Your task to perform on an android device: turn off smart reply in the gmail app Image 0: 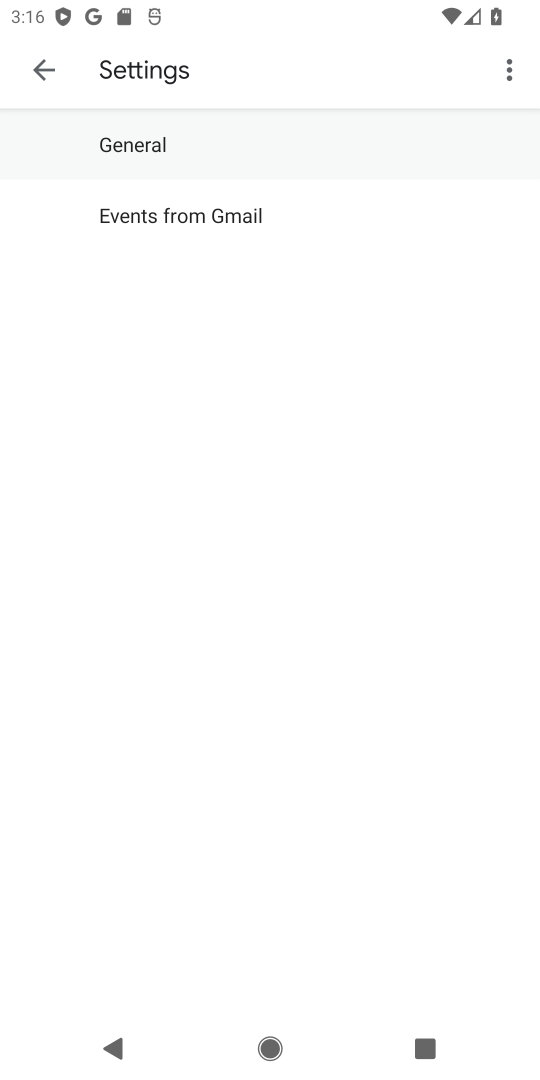
Step 0: press home button
Your task to perform on an android device: turn off smart reply in the gmail app Image 1: 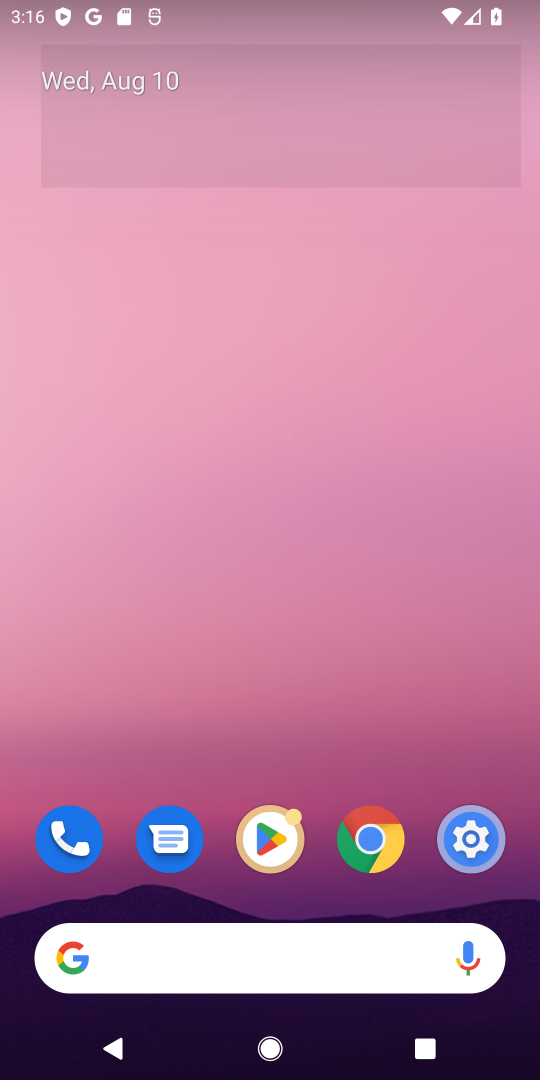
Step 1: drag from (57, 1045) to (326, 199)
Your task to perform on an android device: turn off smart reply in the gmail app Image 2: 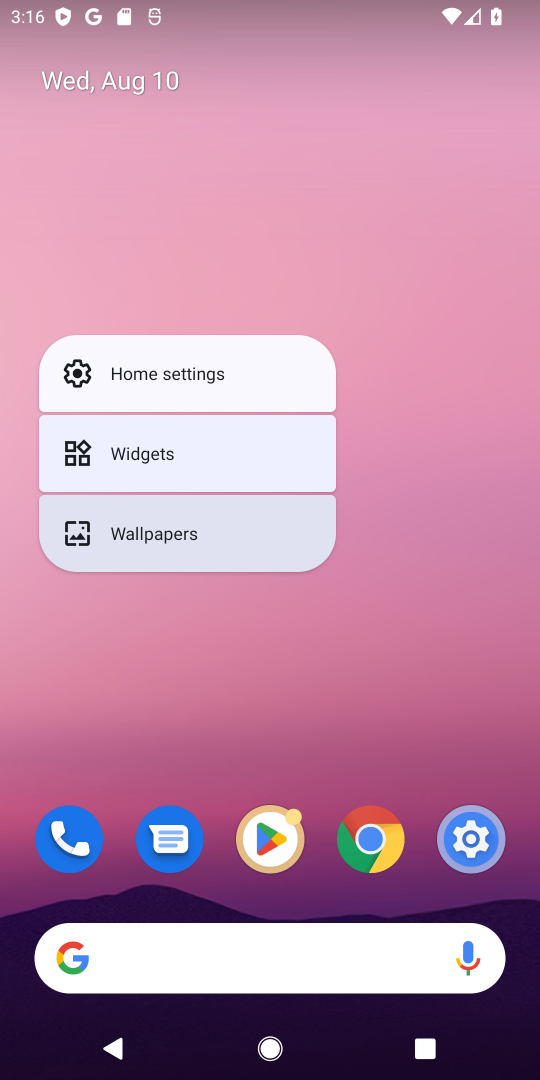
Step 2: click (326, 199)
Your task to perform on an android device: turn off smart reply in the gmail app Image 3: 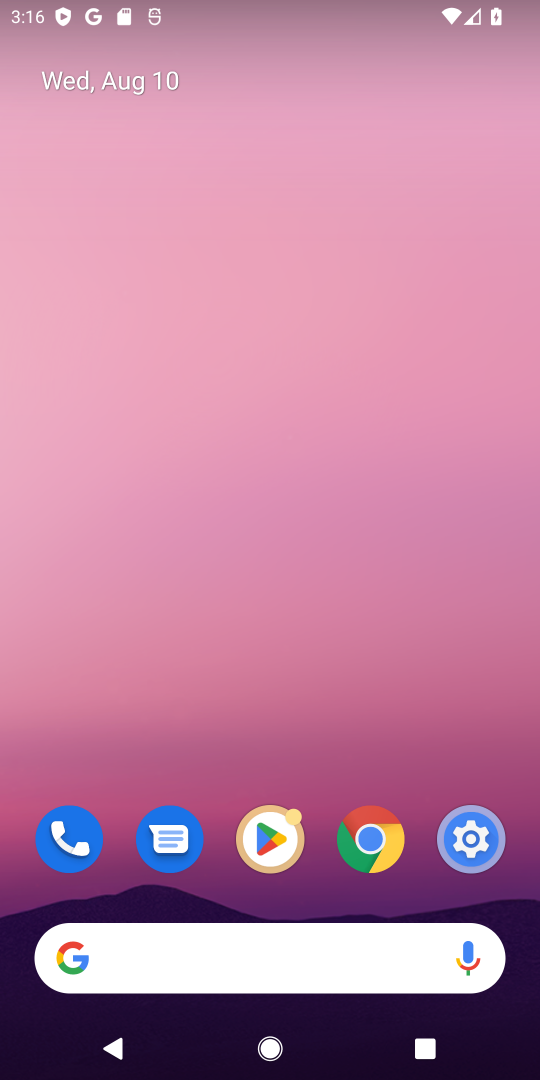
Step 3: drag from (52, 1024) to (279, 304)
Your task to perform on an android device: turn off smart reply in the gmail app Image 4: 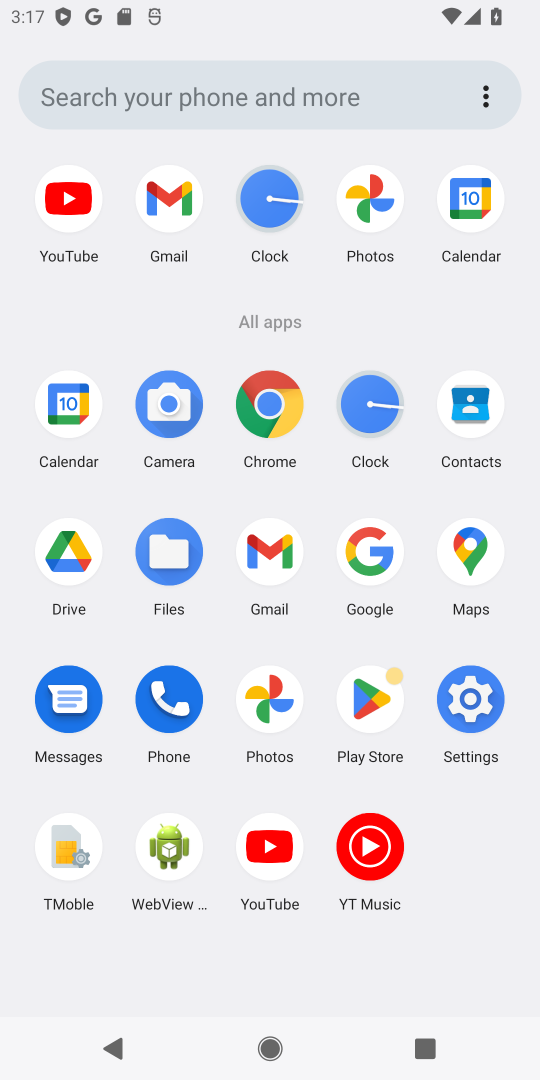
Step 4: click (260, 576)
Your task to perform on an android device: turn off smart reply in the gmail app Image 5: 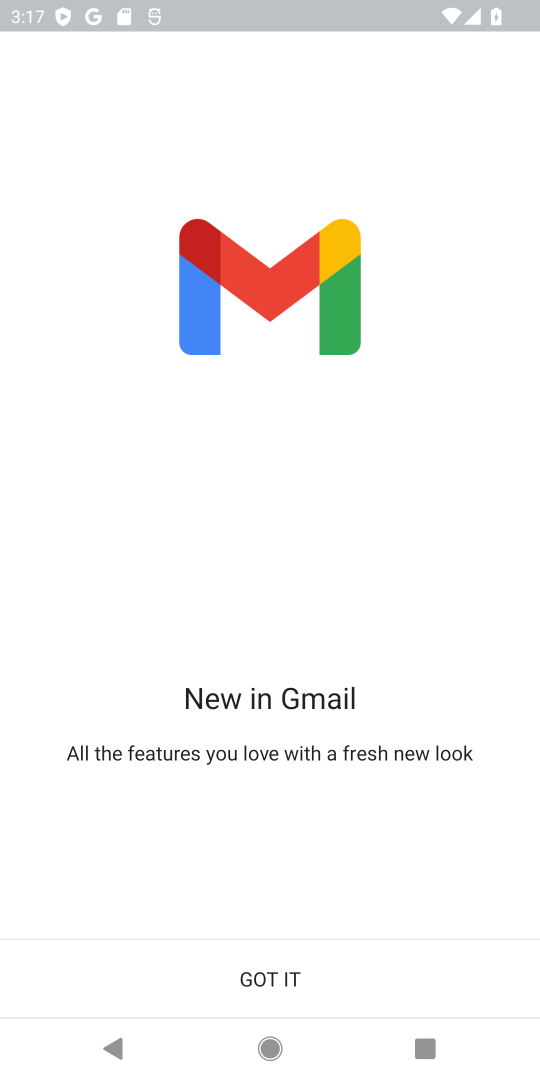
Step 5: click (276, 970)
Your task to perform on an android device: turn off smart reply in the gmail app Image 6: 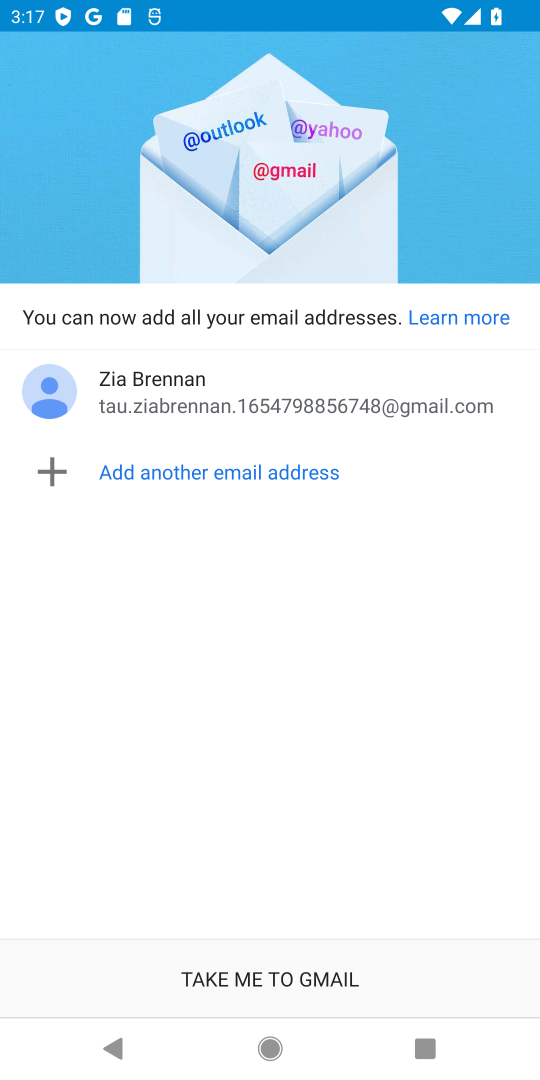
Step 6: click (269, 965)
Your task to perform on an android device: turn off smart reply in the gmail app Image 7: 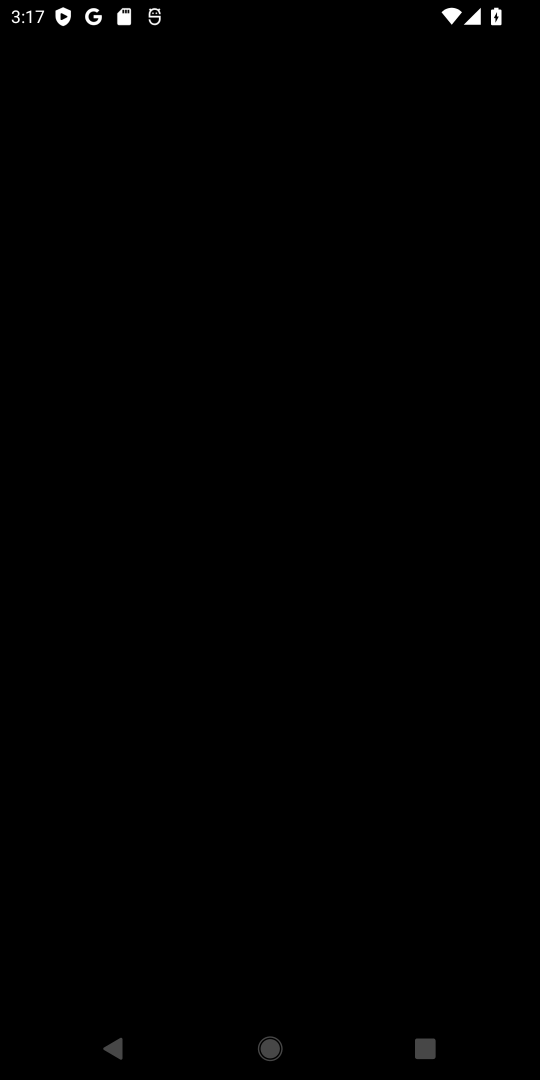
Step 7: click (274, 985)
Your task to perform on an android device: turn off smart reply in the gmail app Image 8: 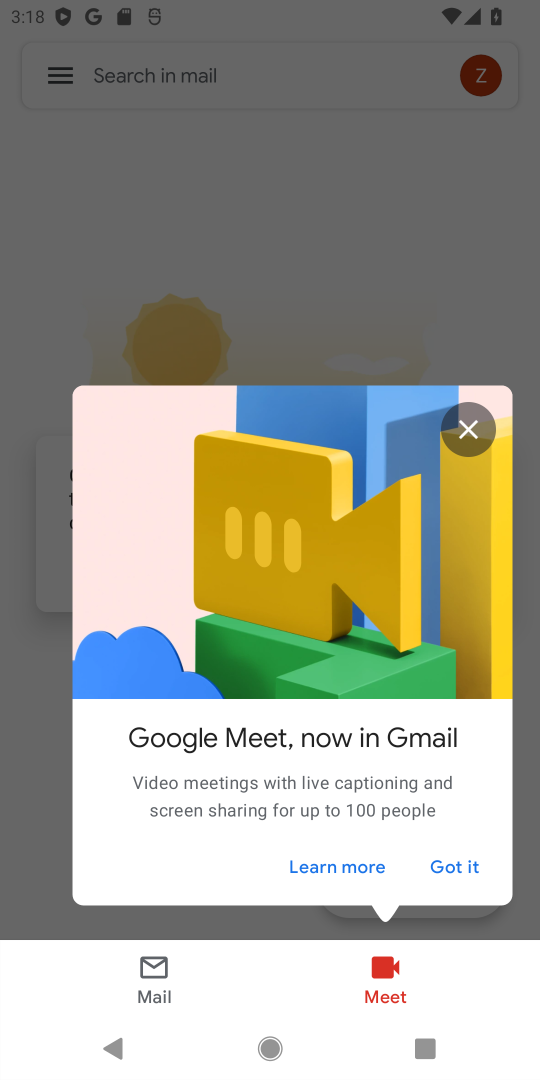
Step 8: click (462, 869)
Your task to perform on an android device: turn off smart reply in the gmail app Image 9: 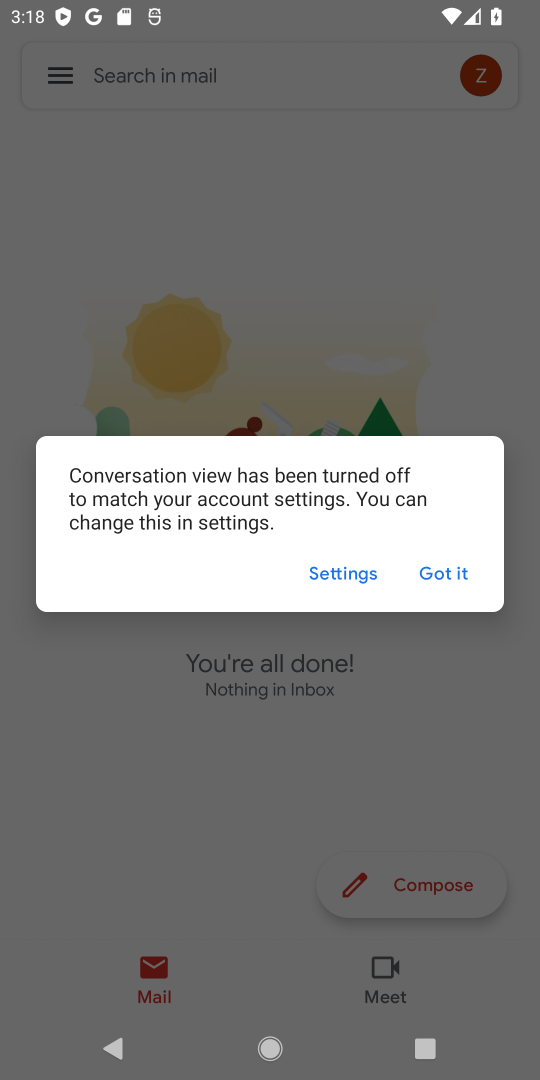
Step 9: click (460, 574)
Your task to perform on an android device: turn off smart reply in the gmail app Image 10: 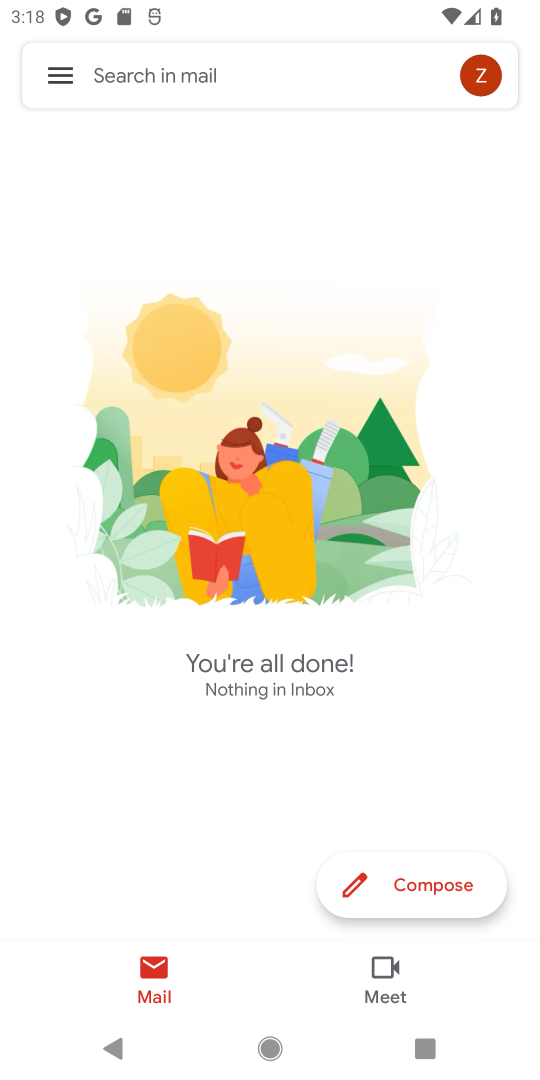
Step 10: click (62, 75)
Your task to perform on an android device: turn off smart reply in the gmail app Image 11: 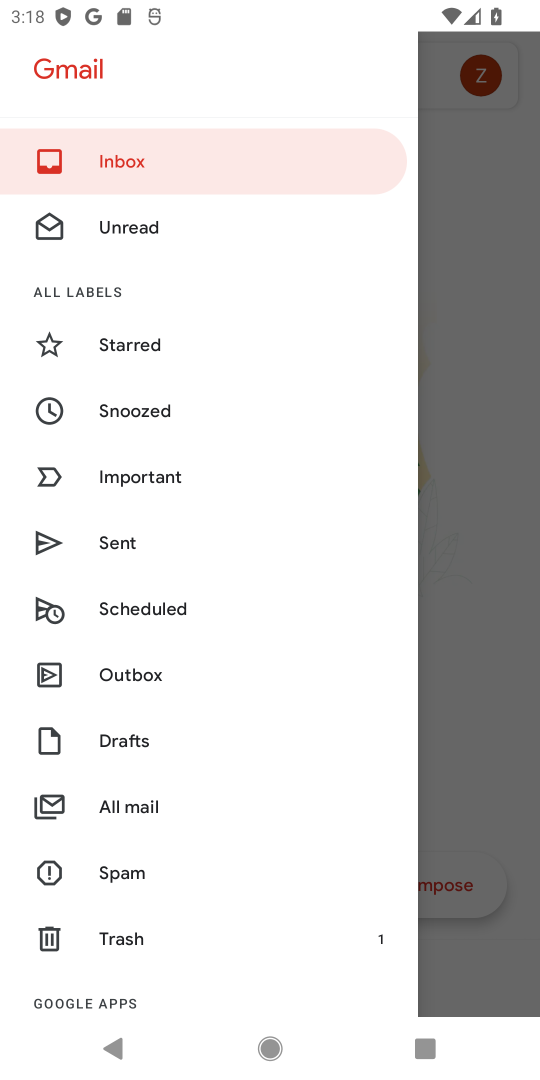
Step 11: drag from (286, 889) to (307, 446)
Your task to perform on an android device: turn off smart reply in the gmail app Image 12: 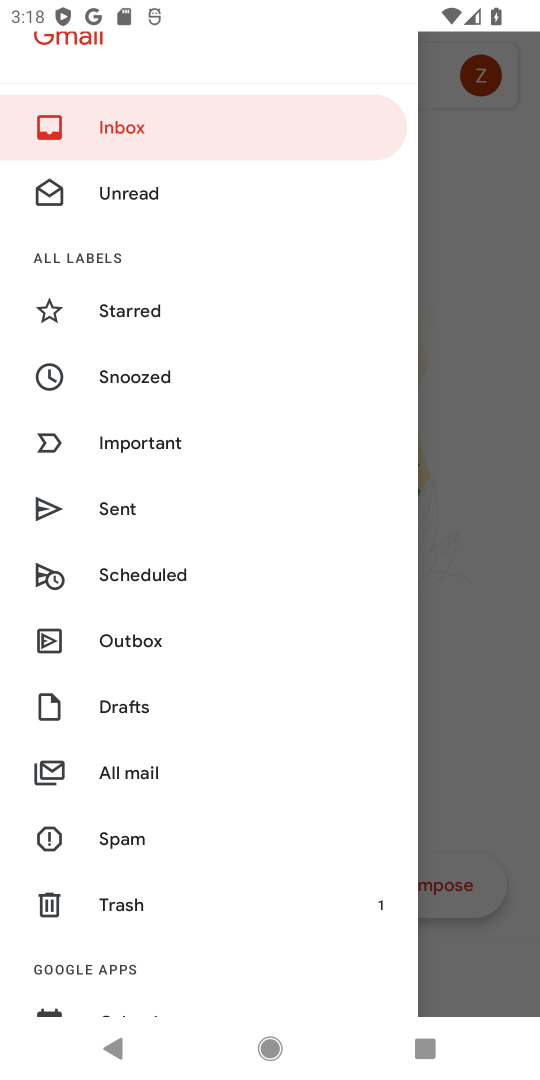
Step 12: drag from (228, 928) to (332, 468)
Your task to perform on an android device: turn off smart reply in the gmail app Image 13: 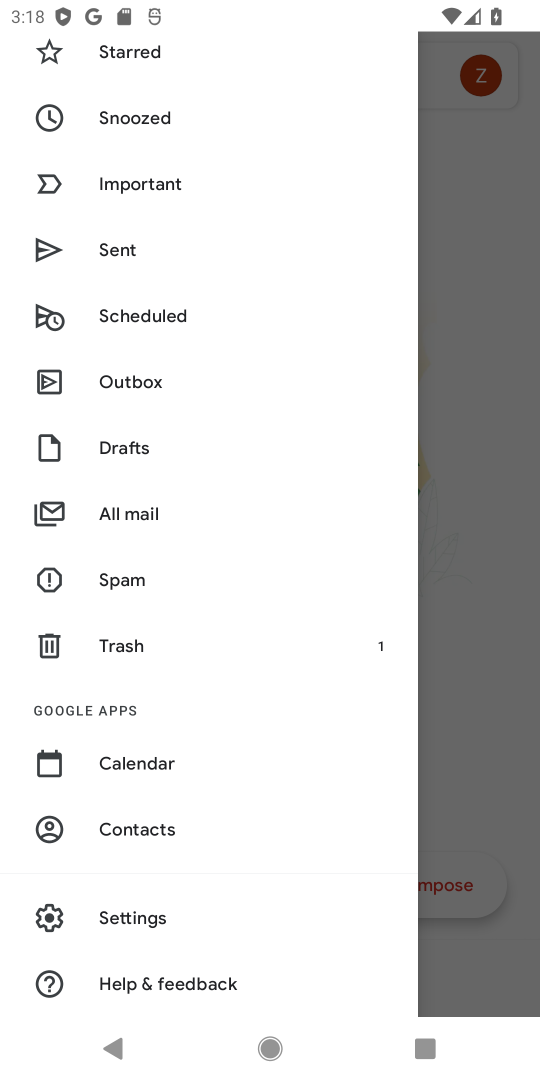
Step 13: click (130, 915)
Your task to perform on an android device: turn off smart reply in the gmail app Image 14: 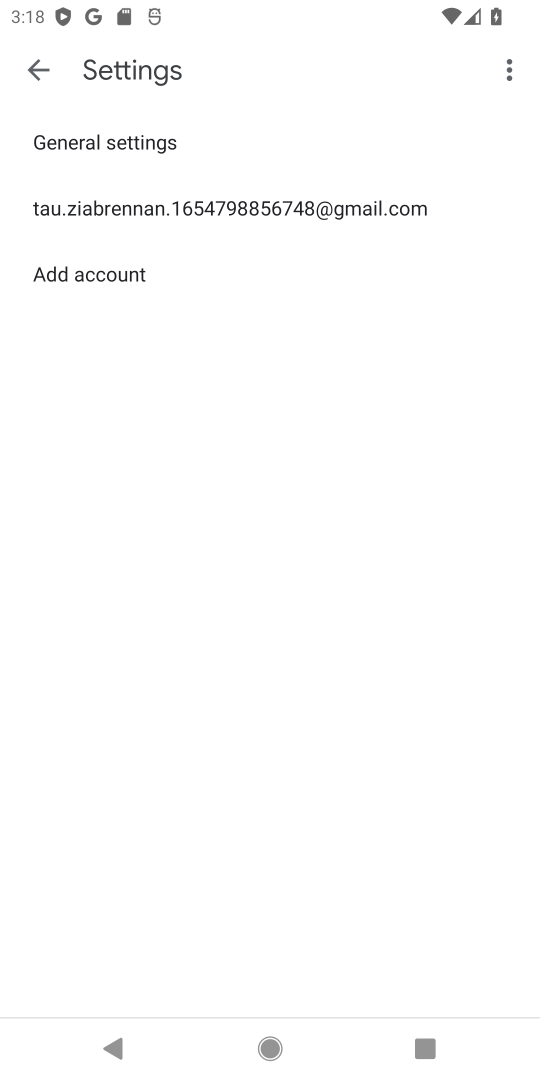
Step 14: click (293, 209)
Your task to perform on an android device: turn off smart reply in the gmail app Image 15: 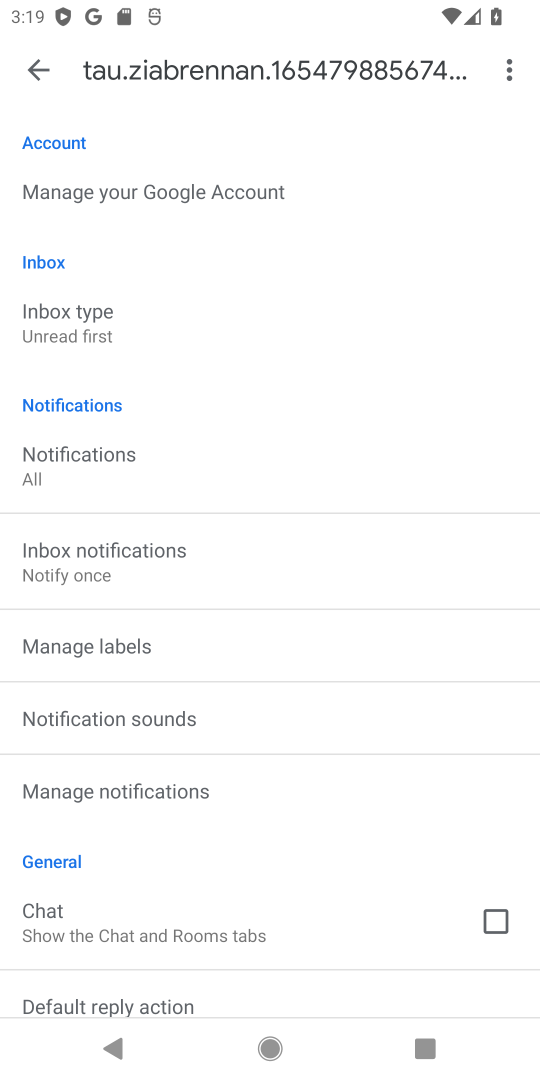
Step 15: drag from (364, 942) to (428, 588)
Your task to perform on an android device: turn off smart reply in the gmail app Image 16: 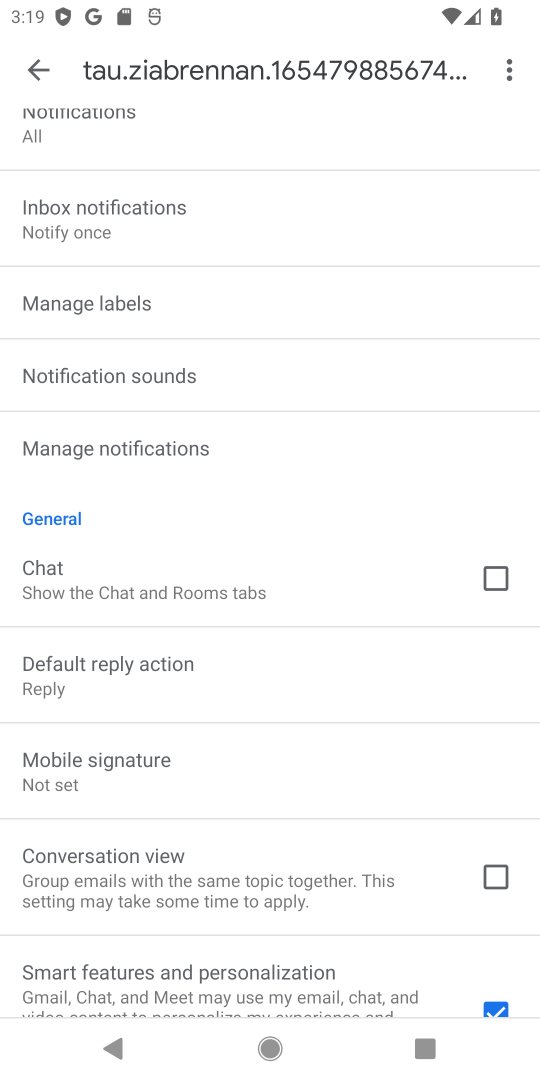
Step 16: drag from (339, 891) to (223, 444)
Your task to perform on an android device: turn off smart reply in the gmail app Image 17: 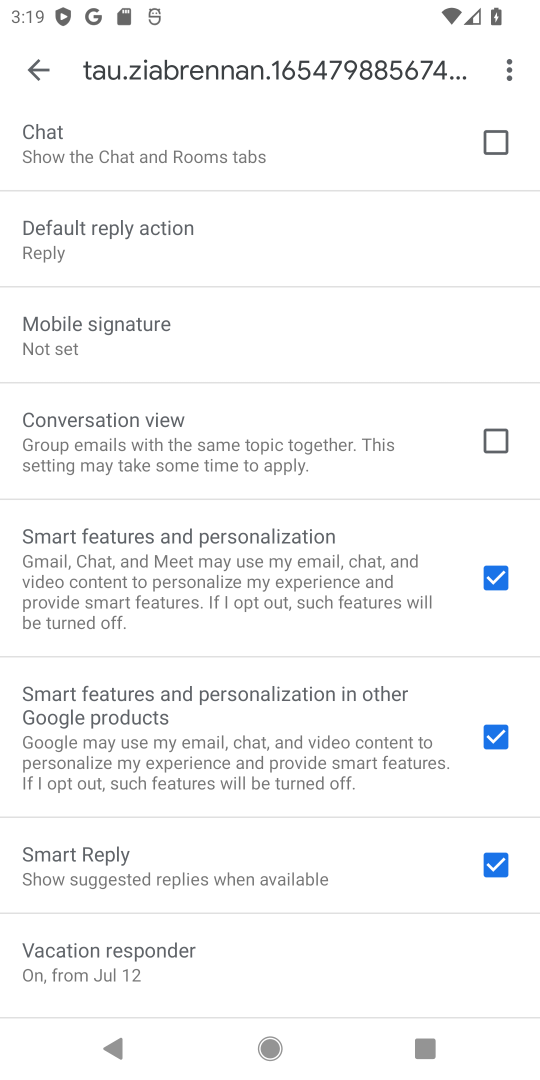
Step 17: click (504, 865)
Your task to perform on an android device: turn off smart reply in the gmail app Image 18: 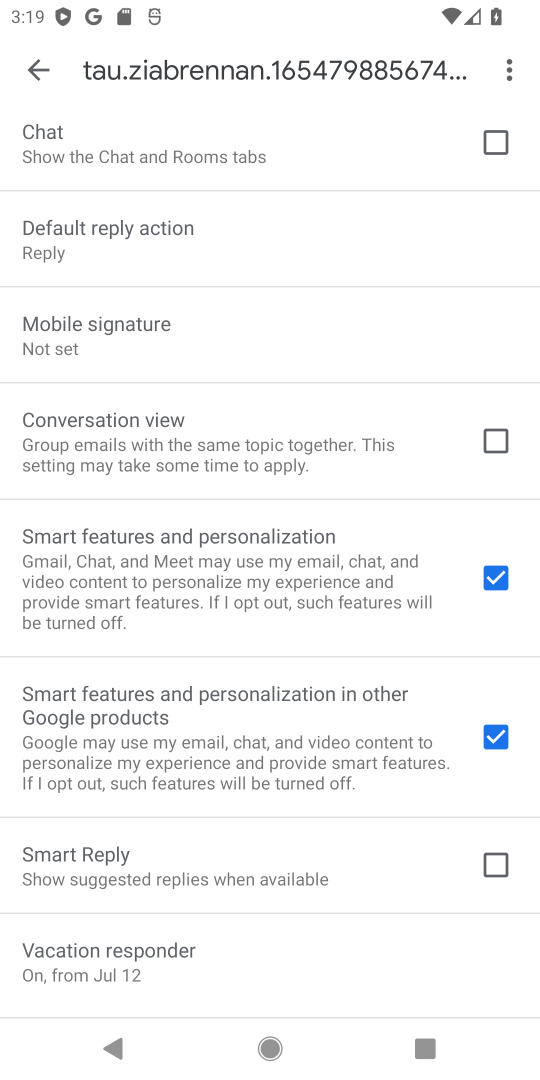
Step 18: task complete